Your task to perform on an android device: Check the news Image 0: 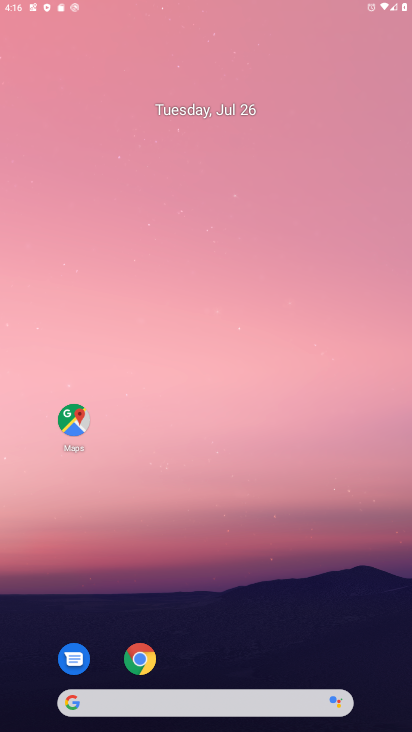
Step 0: press home button
Your task to perform on an android device: Check the news Image 1: 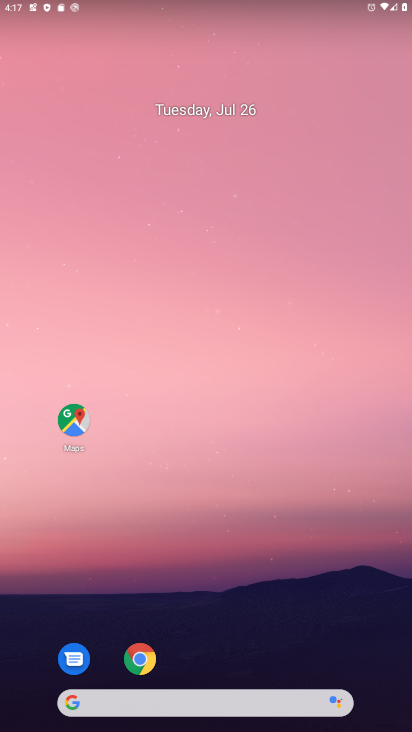
Step 1: click (71, 705)
Your task to perform on an android device: Check the news Image 2: 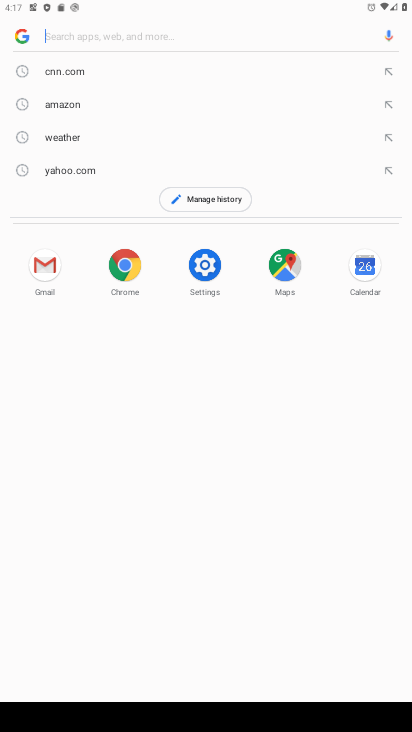
Step 2: type "news"
Your task to perform on an android device: Check the news Image 3: 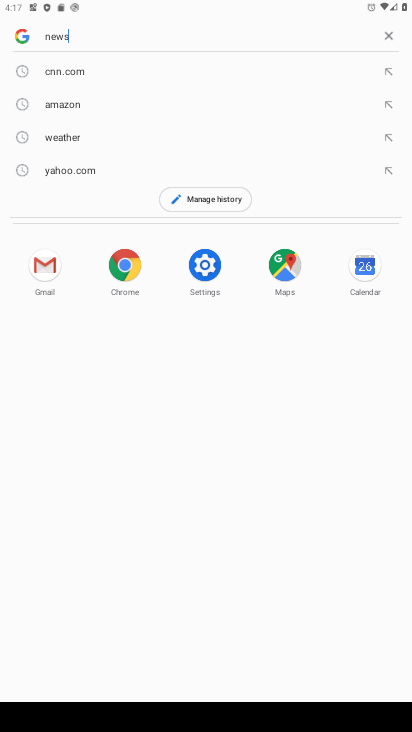
Step 3: press enter
Your task to perform on an android device: Check the news Image 4: 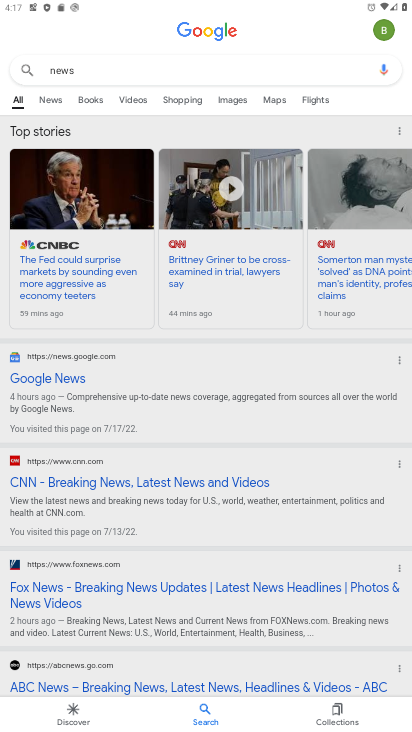
Step 4: task complete